Your task to perform on an android device: turn on the 24-hour format for clock Image 0: 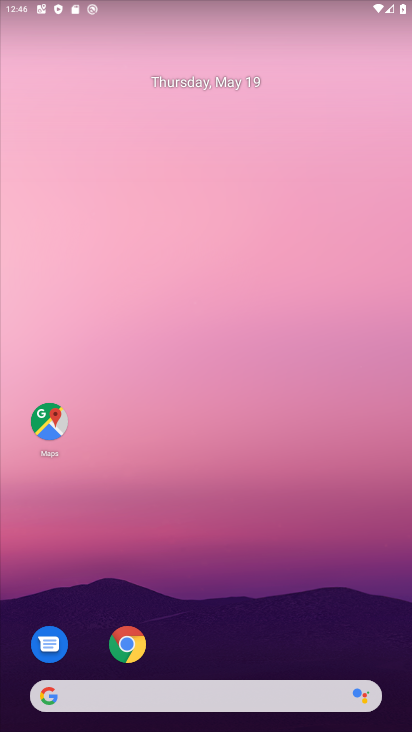
Step 0: drag from (231, 624) to (280, 223)
Your task to perform on an android device: turn on the 24-hour format for clock Image 1: 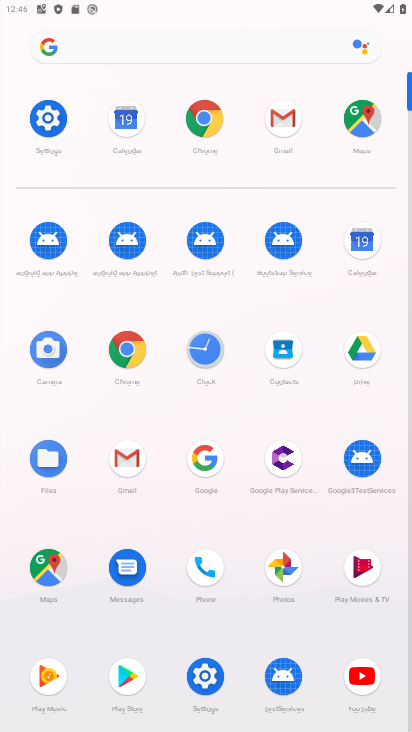
Step 1: click (202, 340)
Your task to perform on an android device: turn on the 24-hour format for clock Image 2: 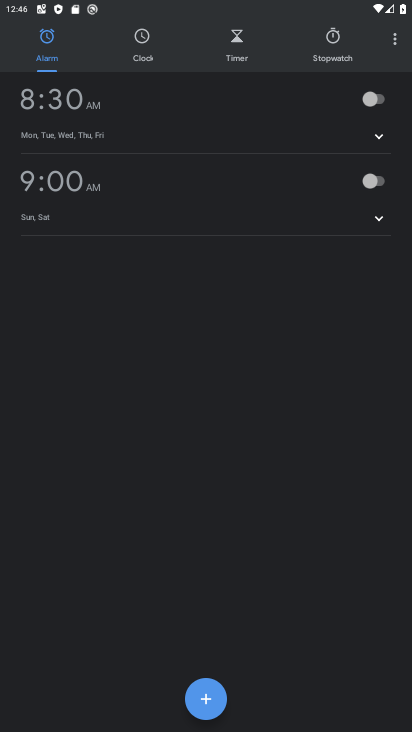
Step 2: drag from (399, 41) to (294, 64)
Your task to perform on an android device: turn on the 24-hour format for clock Image 3: 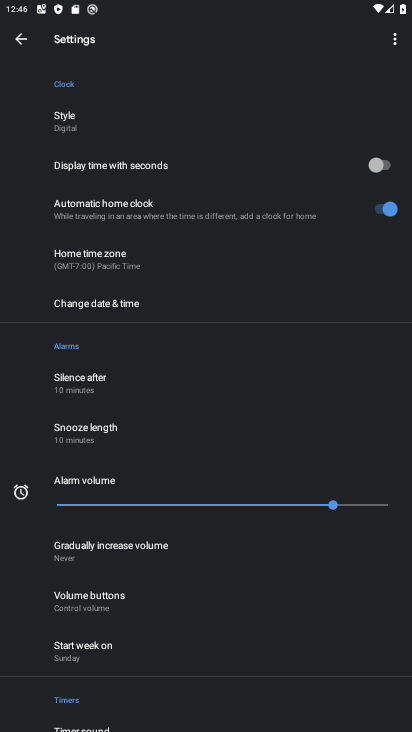
Step 3: click (242, 309)
Your task to perform on an android device: turn on the 24-hour format for clock Image 4: 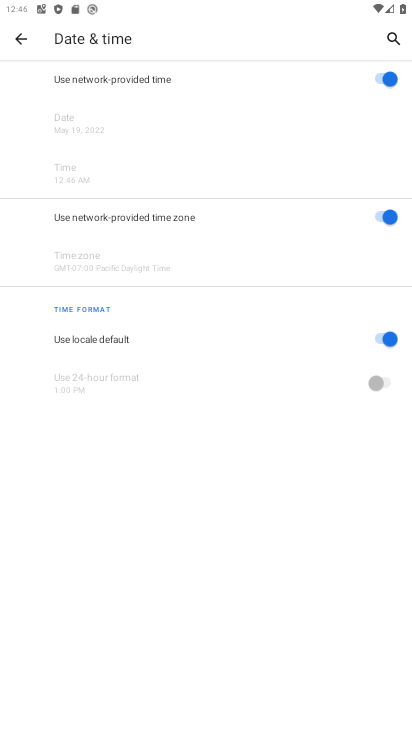
Step 4: click (387, 346)
Your task to perform on an android device: turn on the 24-hour format for clock Image 5: 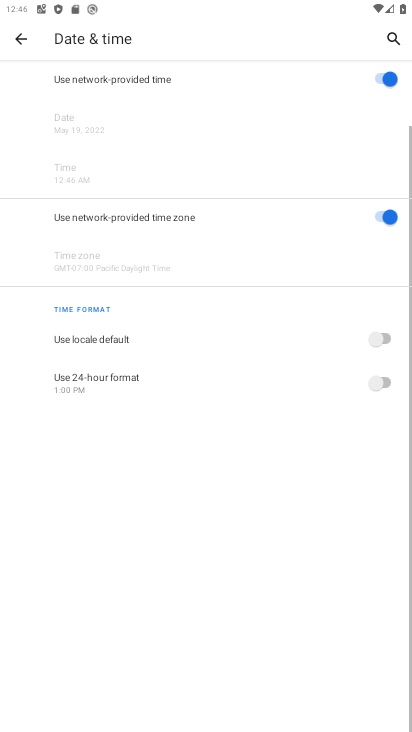
Step 5: click (388, 383)
Your task to perform on an android device: turn on the 24-hour format for clock Image 6: 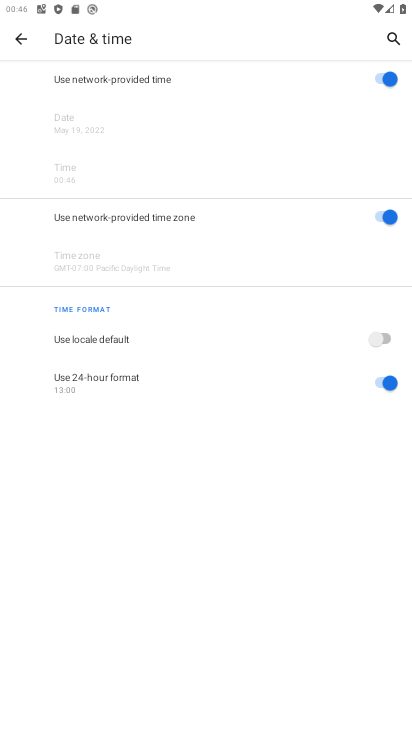
Step 6: task complete